Your task to perform on an android device: move a message to another label in the gmail app Image 0: 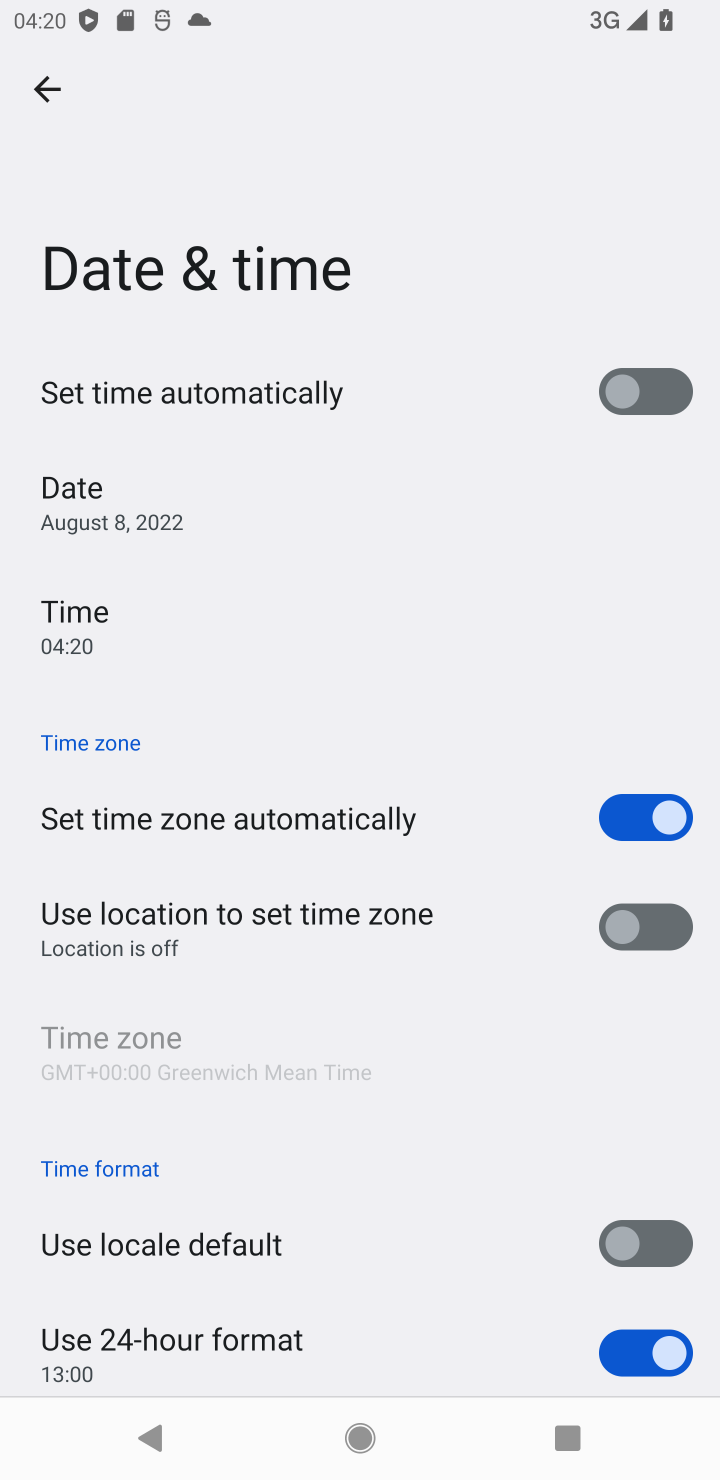
Step 0: press home button
Your task to perform on an android device: move a message to another label in the gmail app Image 1: 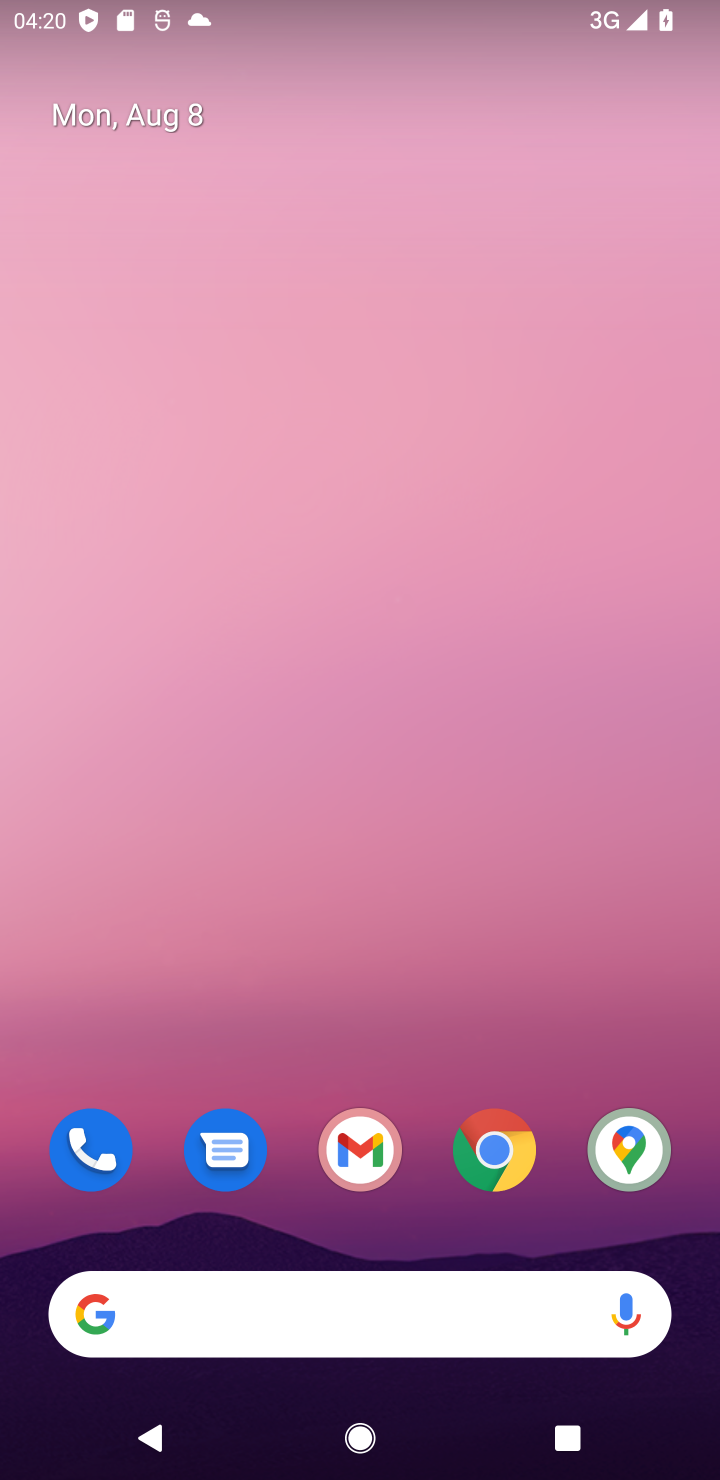
Step 1: click (374, 1173)
Your task to perform on an android device: move a message to another label in the gmail app Image 2: 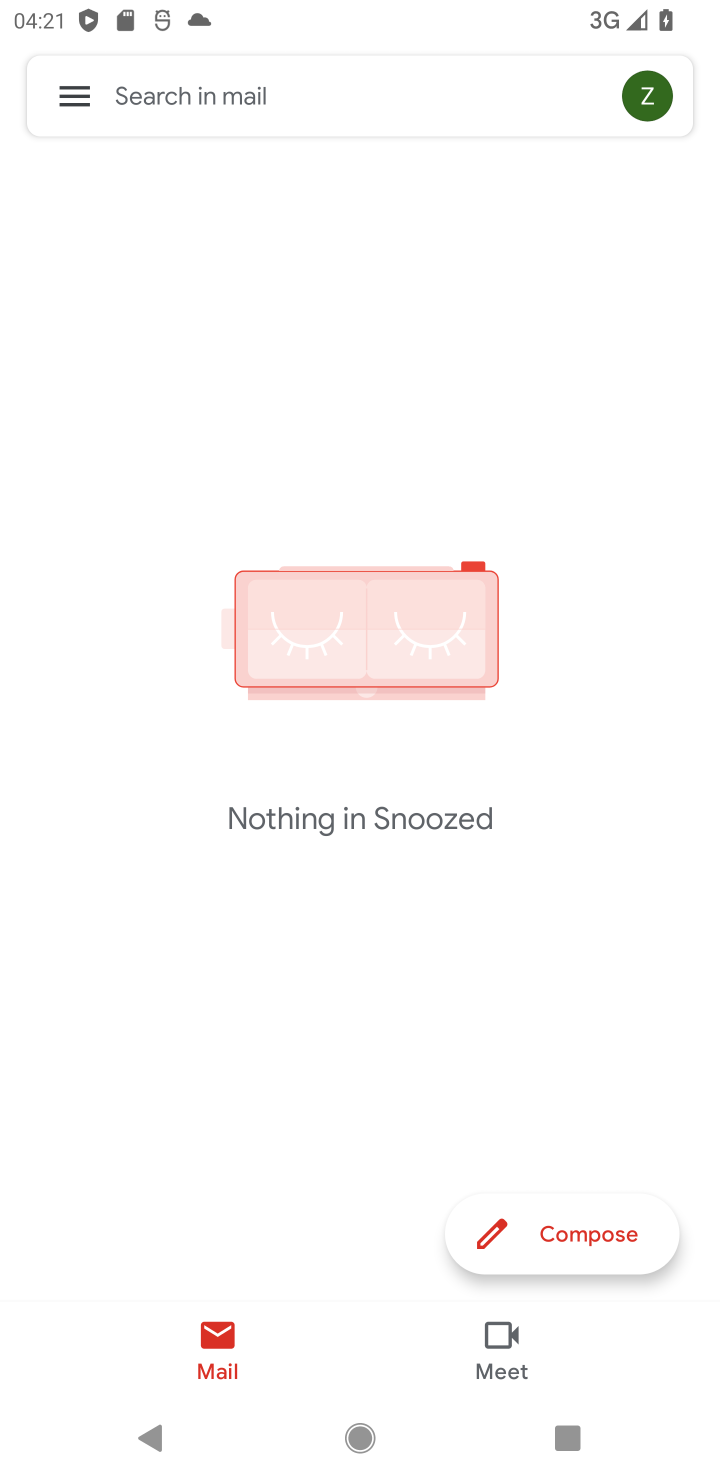
Step 2: task complete